Your task to perform on an android device: turn on the 12-hour format for clock Image 0: 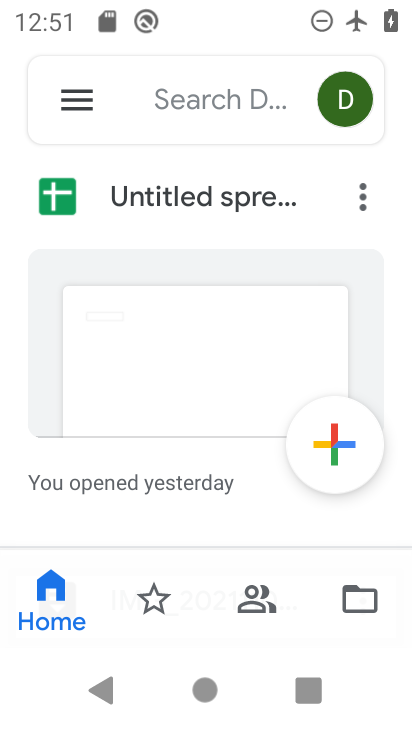
Step 0: press home button
Your task to perform on an android device: turn on the 12-hour format for clock Image 1: 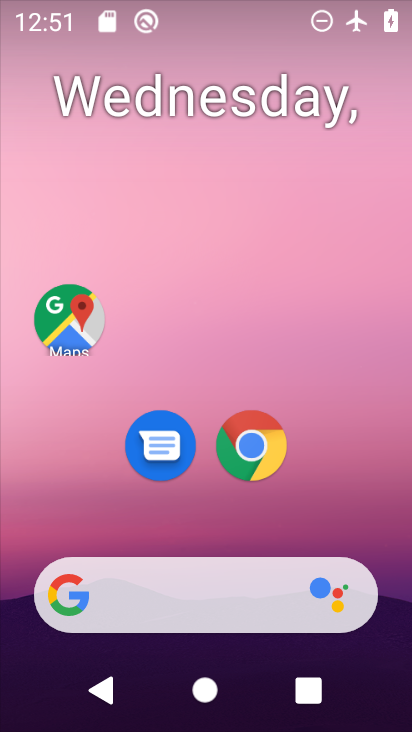
Step 1: drag from (393, 656) to (216, 0)
Your task to perform on an android device: turn on the 12-hour format for clock Image 2: 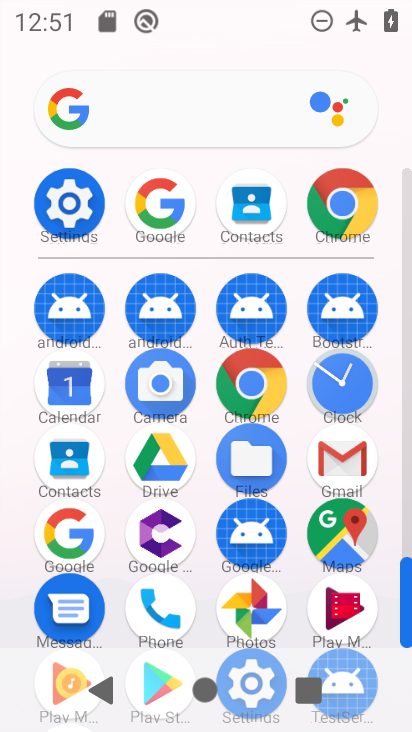
Step 2: click (364, 400)
Your task to perform on an android device: turn on the 12-hour format for clock Image 3: 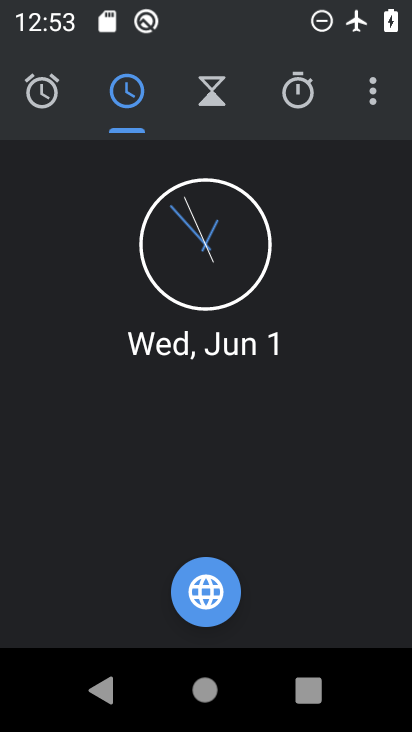
Step 3: click (372, 102)
Your task to perform on an android device: turn on the 12-hour format for clock Image 4: 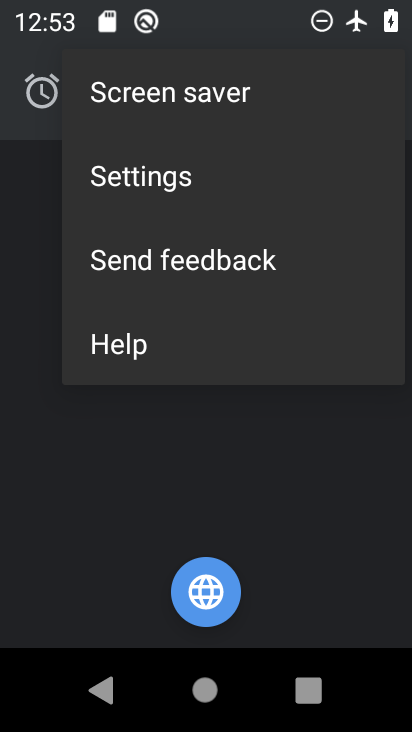
Step 4: click (184, 170)
Your task to perform on an android device: turn on the 12-hour format for clock Image 5: 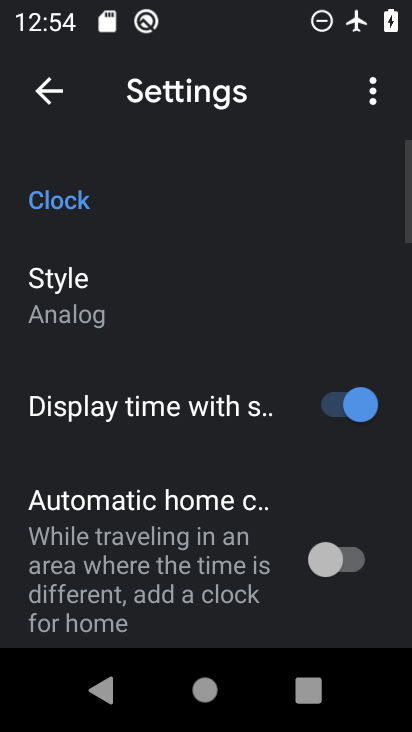
Step 5: drag from (203, 577) to (189, 50)
Your task to perform on an android device: turn on the 12-hour format for clock Image 6: 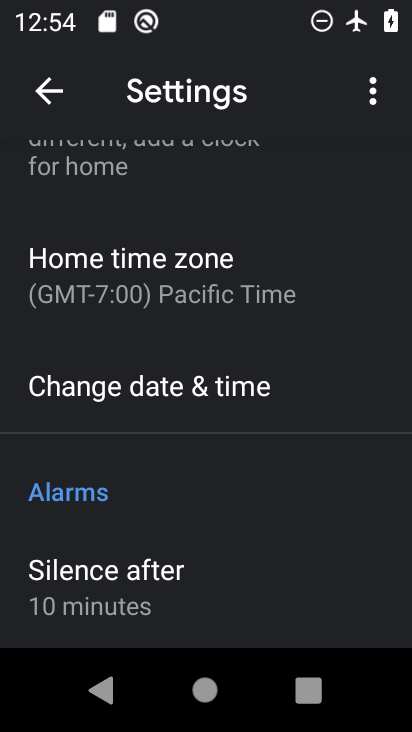
Step 6: click (175, 423)
Your task to perform on an android device: turn on the 12-hour format for clock Image 7: 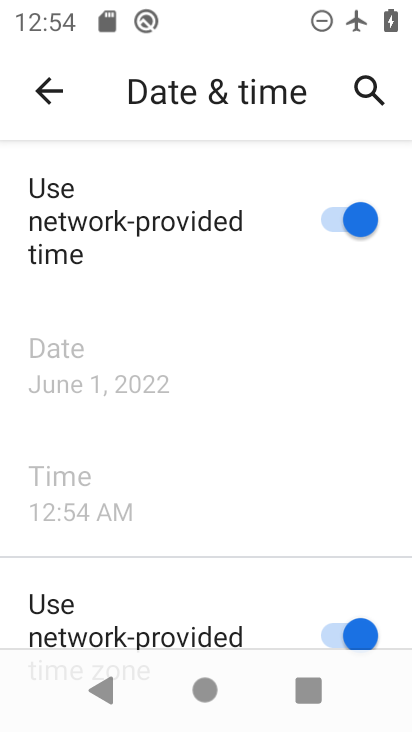
Step 7: task complete